Your task to perform on an android device: set the timer Image 0: 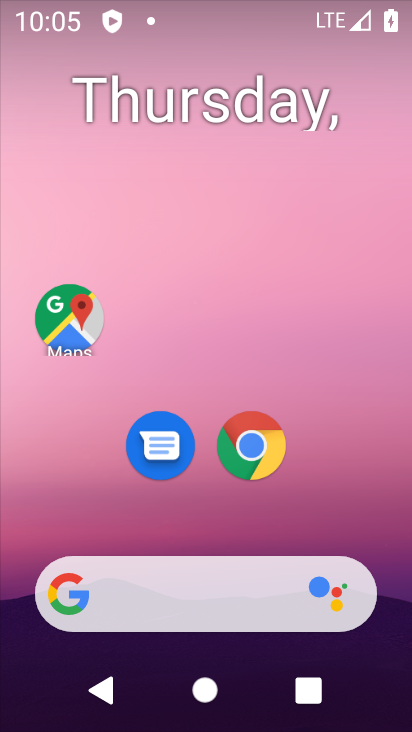
Step 0: click (77, 327)
Your task to perform on an android device: set the timer Image 1: 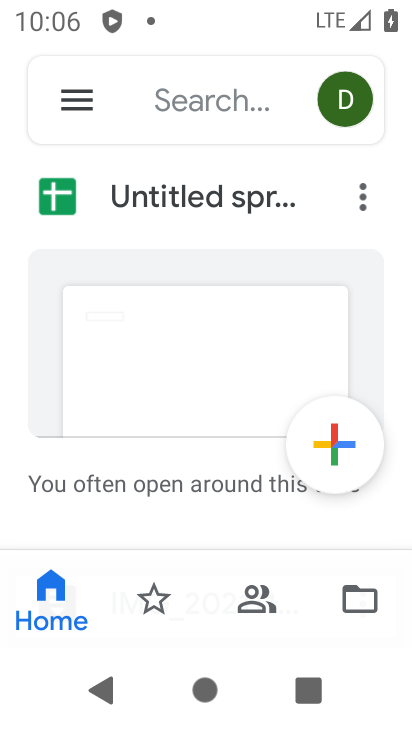
Step 1: press home button
Your task to perform on an android device: set the timer Image 2: 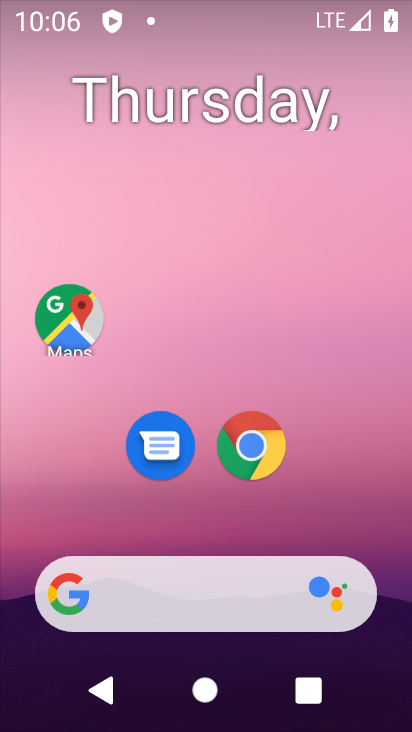
Step 2: drag from (360, 490) to (318, 138)
Your task to perform on an android device: set the timer Image 3: 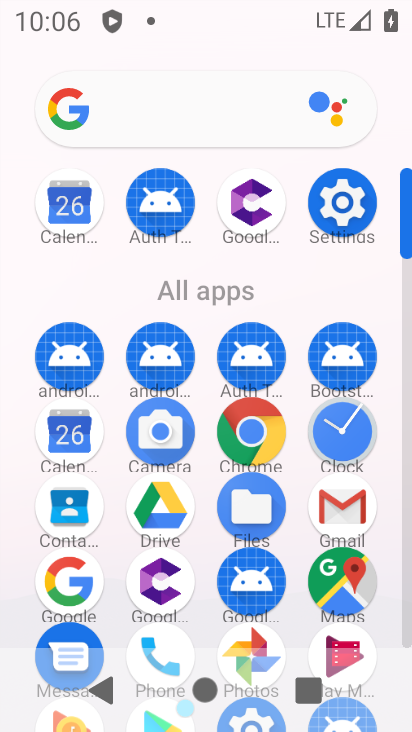
Step 3: click (351, 453)
Your task to perform on an android device: set the timer Image 4: 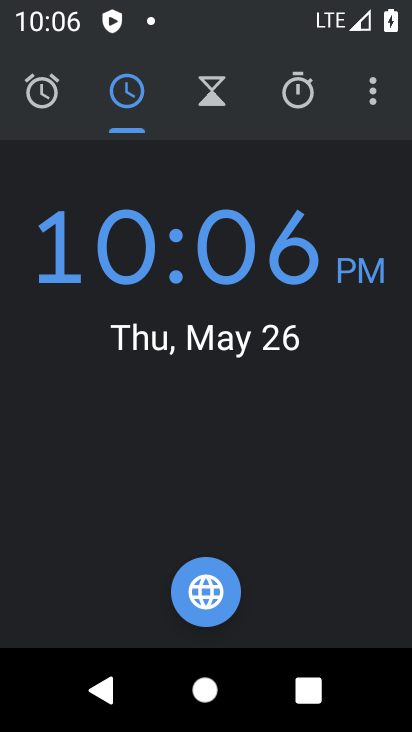
Step 4: click (213, 112)
Your task to perform on an android device: set the timer Image 5: 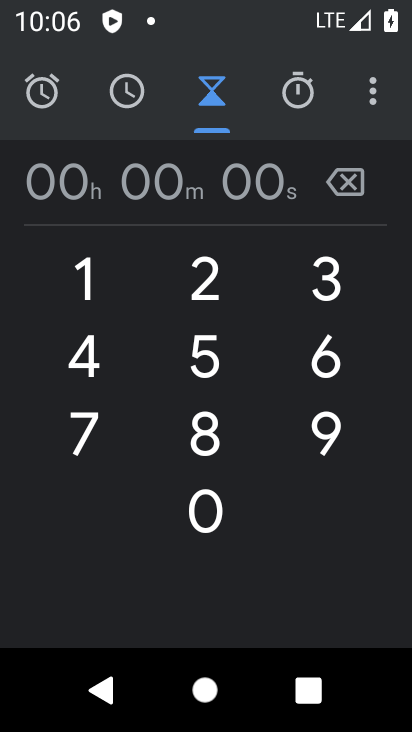
Step 5: type "77777"
Your task to perform on an android device: set the timer Image 6: 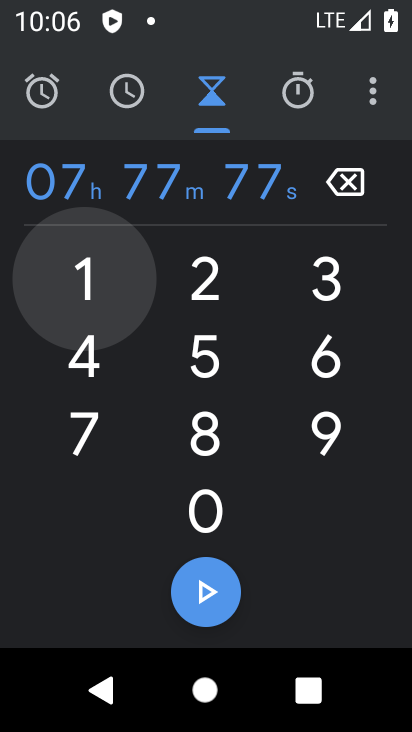
Step 6: click (201, 581)
Your task to perform on an android device: set the timer Image 7: 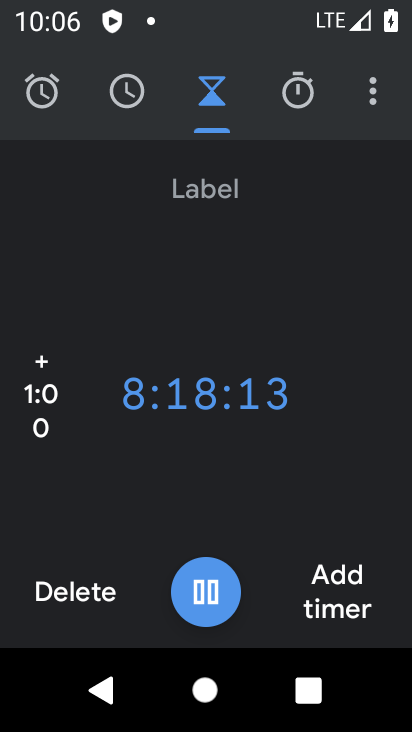
Step 7: task complete